Your task to perform on an android device: Go to network settings Image 0: 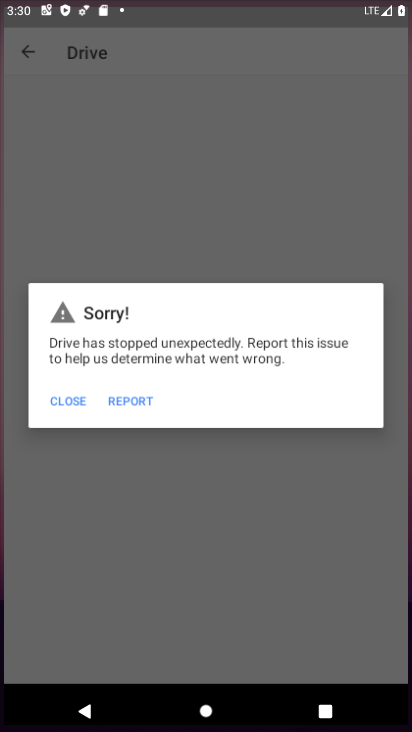
Step 0: drag from (303, 597) to (222, 84)
Your task to perform on an android device: Go to network settings Image 1: 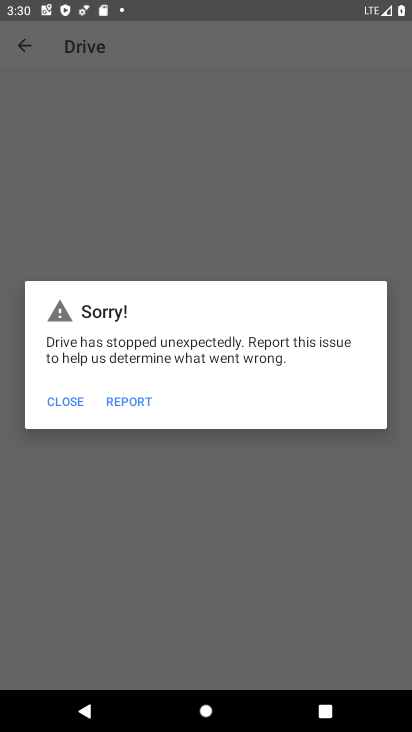
Step 1: press home button
Your task to perform on an android device: Go to network settings Image 2: 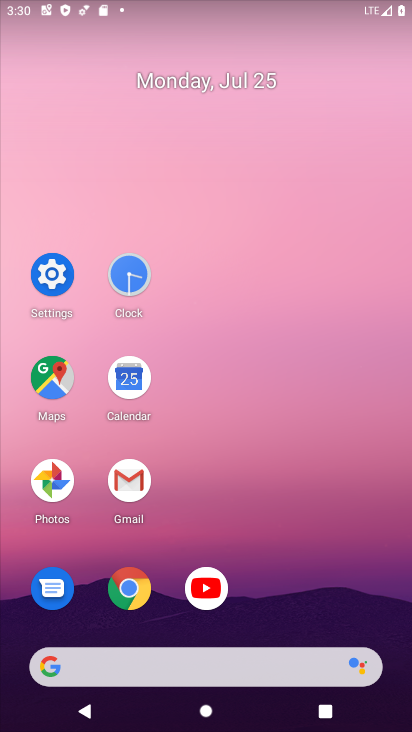
Step 2: click (49, 269)
Your task to perform on an android device: Go to network settings Image 3: 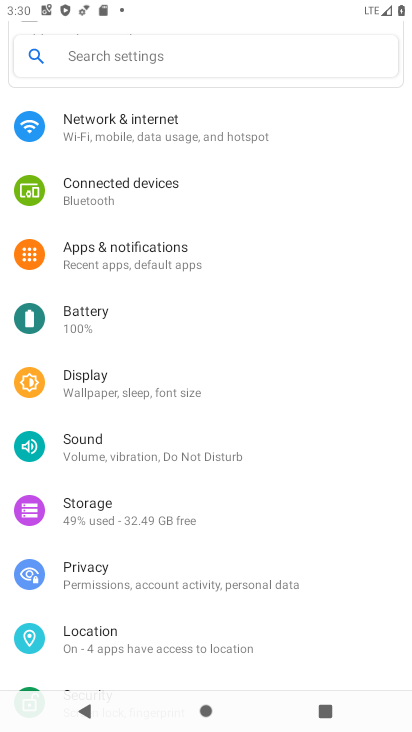
Step 3: click (108, 121)
Your task to perform on an android device: Go to network settings Image 4: 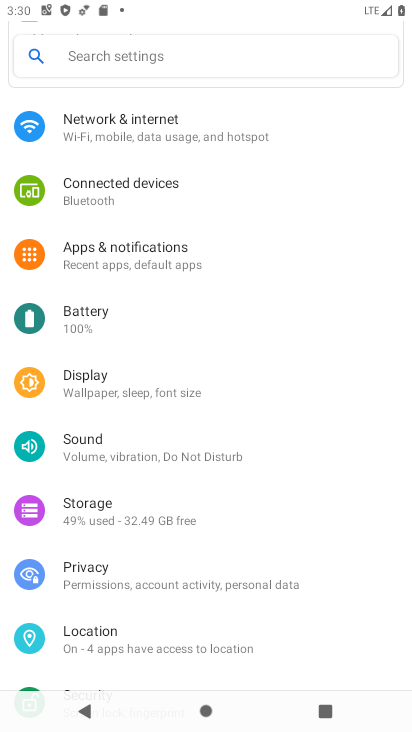
Step 4: click (108, 121)
Your task to perform on an android device: Go to network settings Image 5: 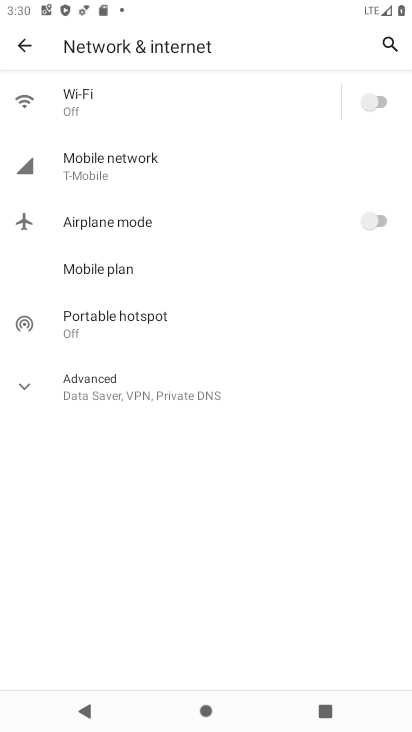
Step 5: task complete